Your task to perform on an android device: Open wifi settings Image 0: 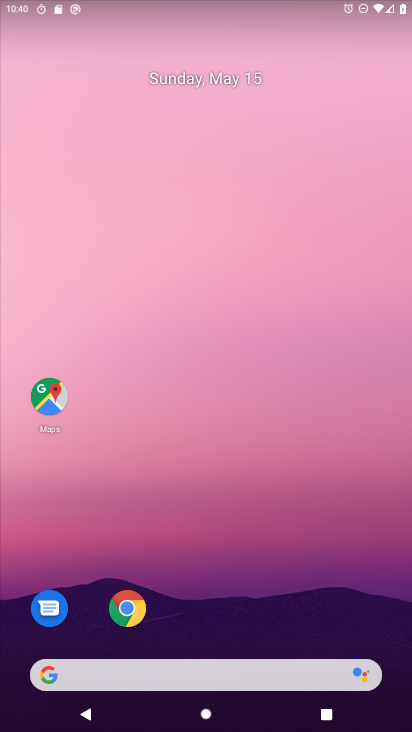
Step 0: drag from (334, 567) to (349, 146)
Your task to perform on an android device: Open wifi settings Image 1: 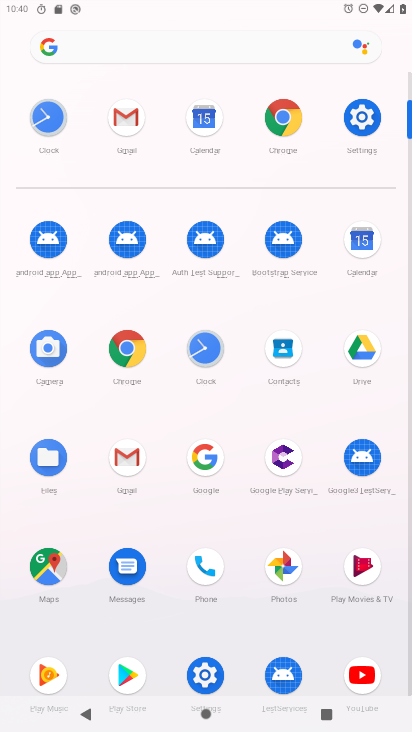
Step 1: click (364, 119)
Your task to perform on an android device: Open wifi settings Image 2: 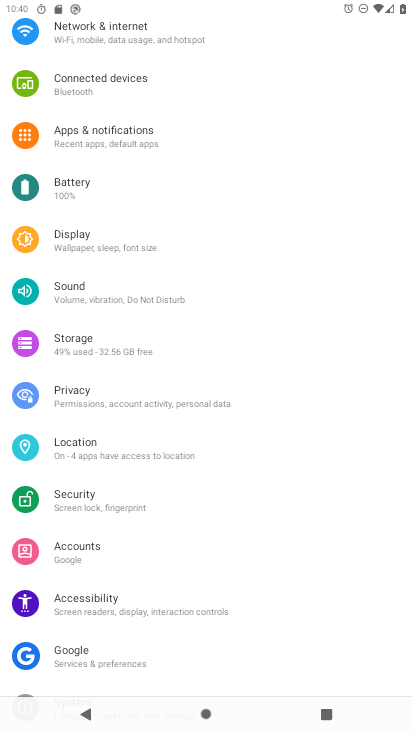
Step 2: drag from (271, 144) to (275, 605)
Your task to perform on an android device: Open wifi settings Image 3: 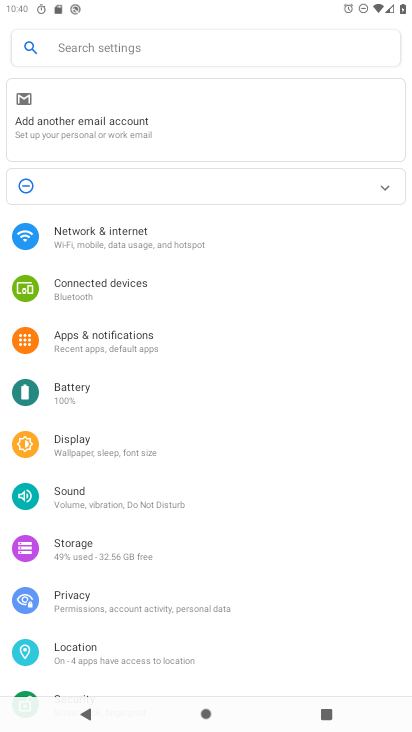
Step 3: click (168, 239)
Your task to perform on an android device: Open wifi settings Image 4: 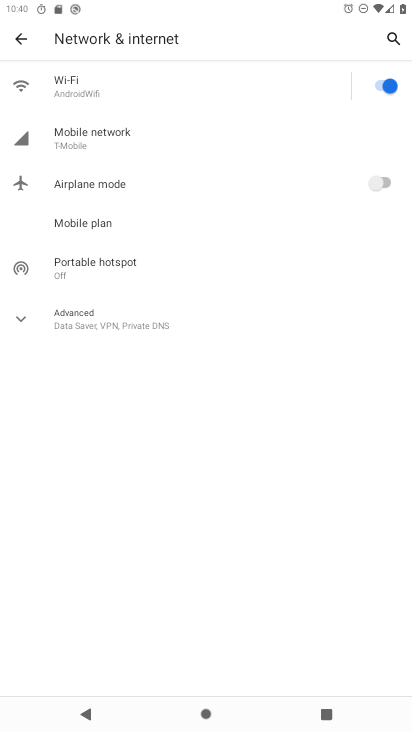
Step 4: click (123, 89)
Your task to perform on an android device: Open wifi settings Image 5: 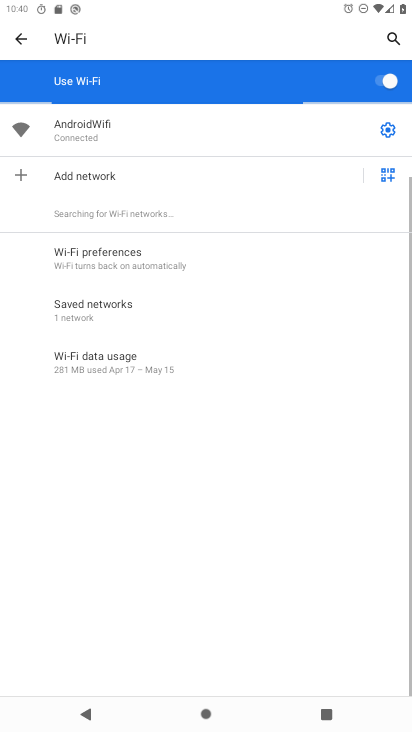
Step 5: click (391, 136)
Your task to perform on an android device: Open wifi settings Image 6: 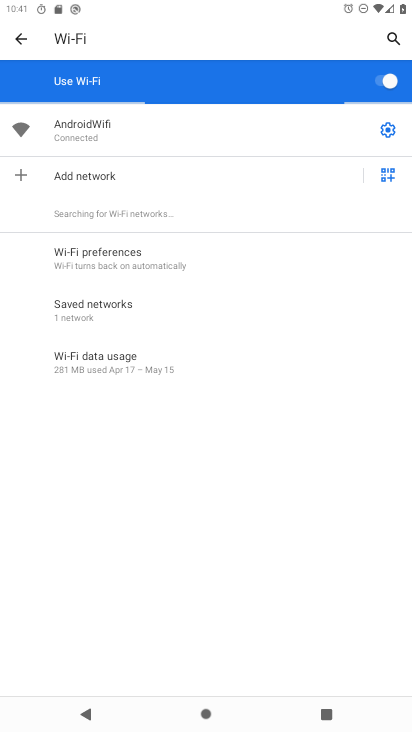
Step 6: task complete